Your task to perform on an android device: add a label to a message in the gmail app Image 0: 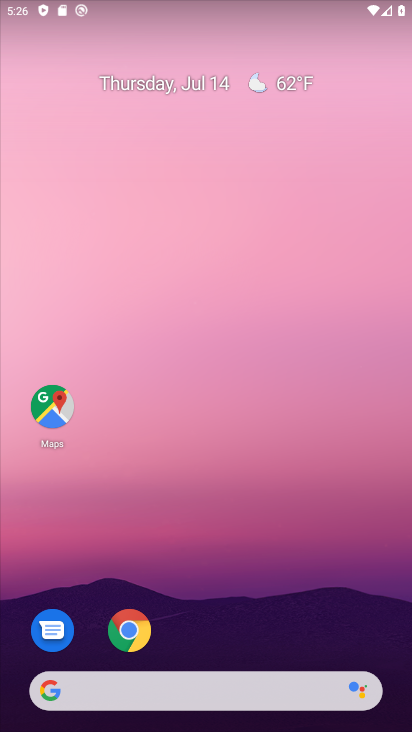
Step 0: drag from (212, 658) to (218, 169)
Your task to perform on an android device: add a label to a message in the gmail app Image 1: 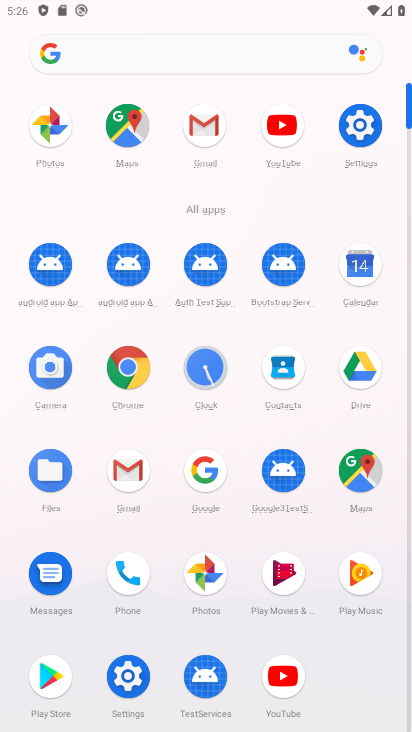
Step 1: click (211, 133)
Your task to perform on an android device: add a label to a message in the gmail app Image 2: 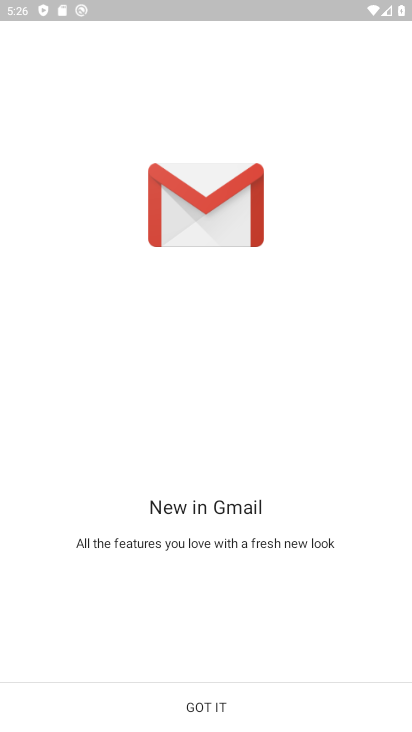
Step 2: click (224, 720)
Your task to perform on an android device: add a label to a message in the gmail app Image 3: 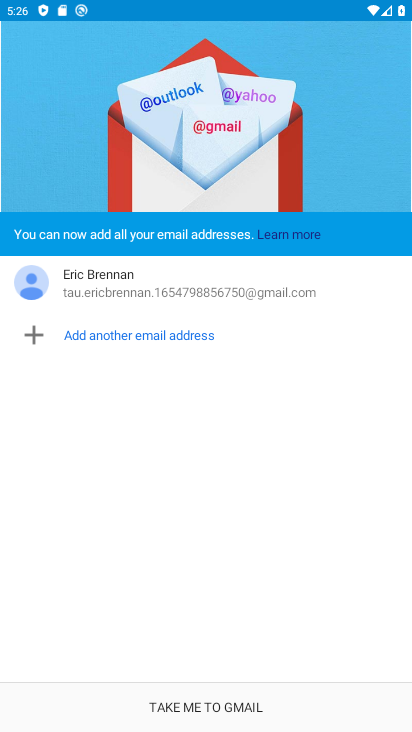
Step 3: click (224, 720)
Your task to perform on an android device: add a label to a message in the gmail app Image 4: 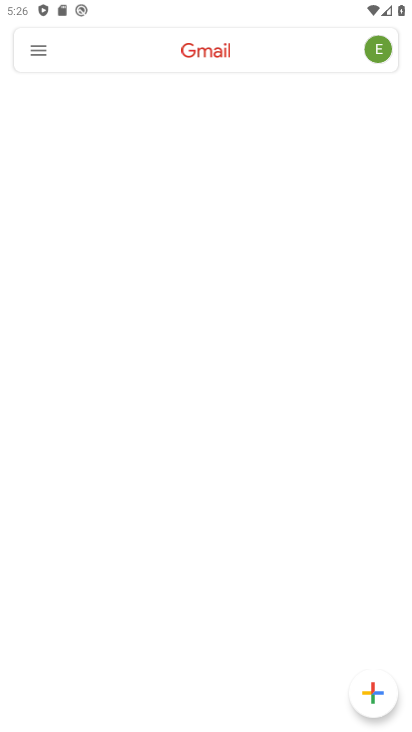
Step 4: click (224, 720)
Your task to perform on an android device: add a label to a message in the gmail app Image 5: 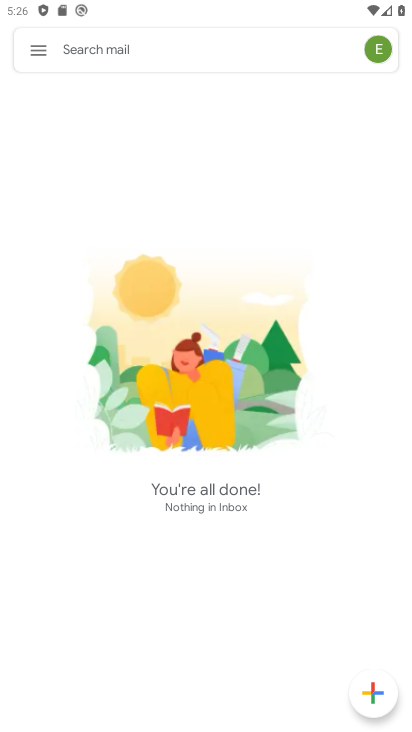
Step 5: task complete